Your task to perform on an android device: Open Reddit.com Image 0: 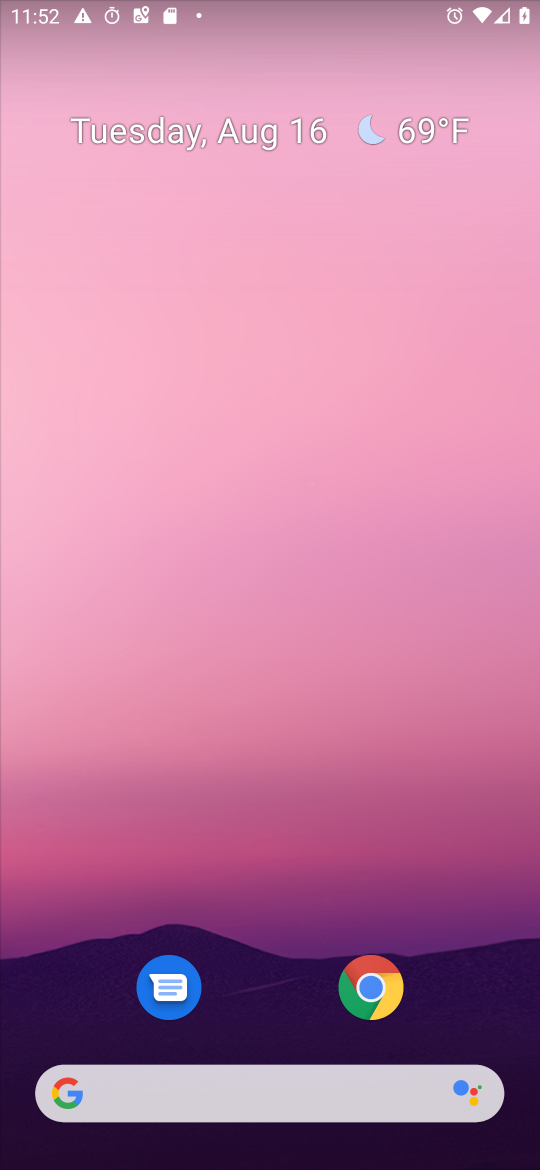
Step 0: click (248, 1083)
Your task to perform on an android device: Open Reddit.com Image 1: 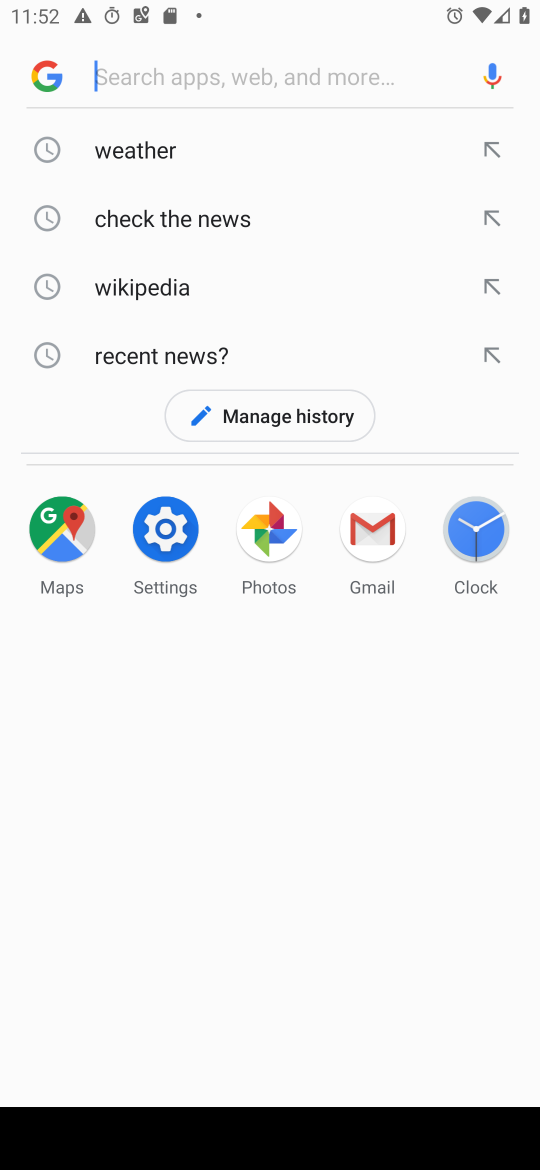
Step 1: type " Reddit.com"
Your task to perform on an android device: Open Reddit.com Image 2: 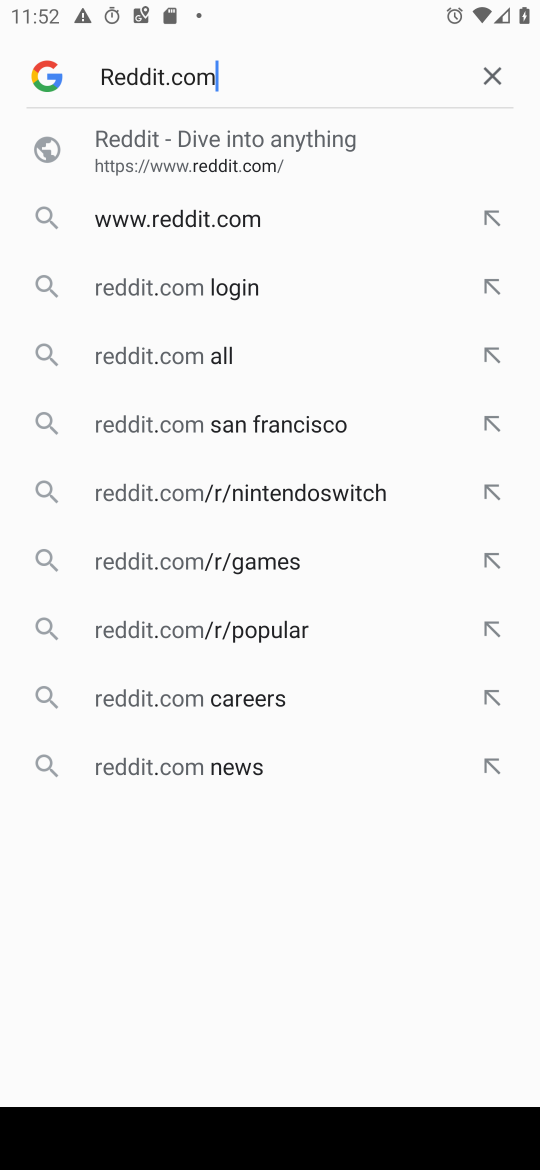
Step 2: click (191, 140)
Your task to perform on an android device: Open Reddit.com Image 3: 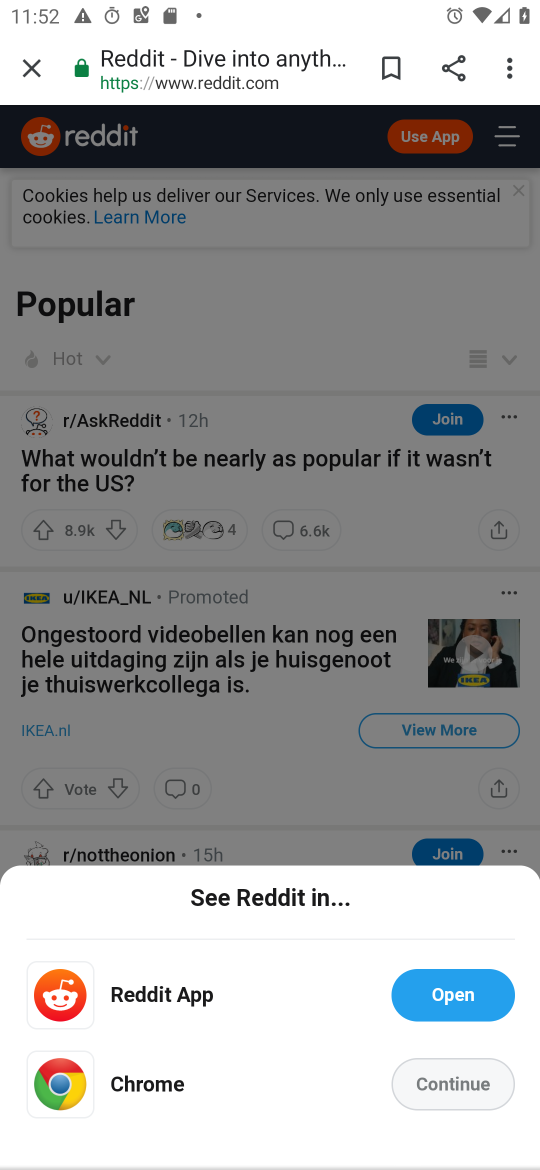
Step 3: task complete